Your task to perform on an android device: toggle wifi Image 0: 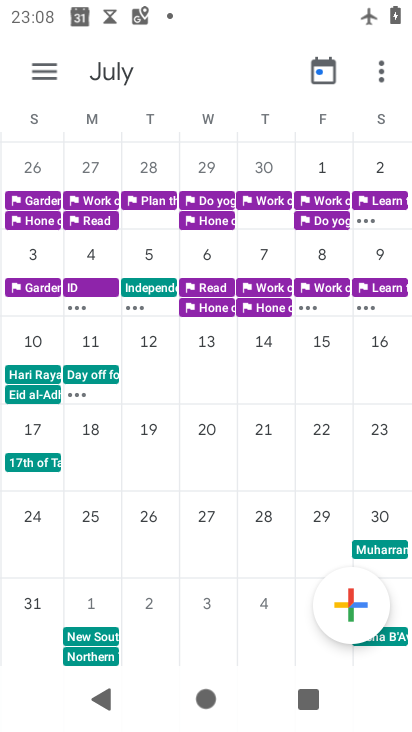
Step 0: press home button
Your task to perform on an android device: toggle wifi Image 1: 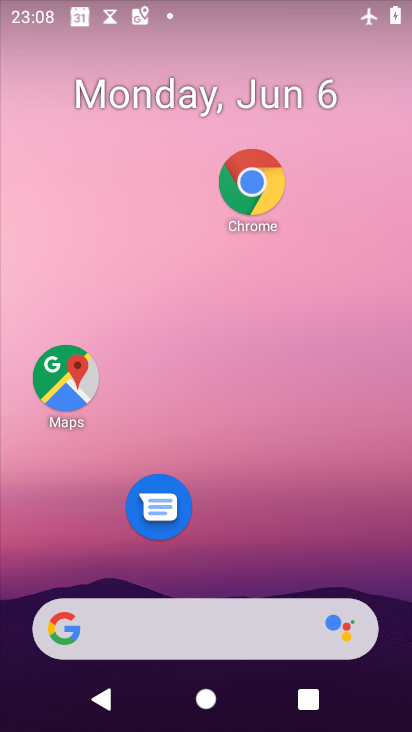
Step 1: drag from (251, 395) to (265, 206)
Your task to perform on an android device: toggle wifi Image 2: 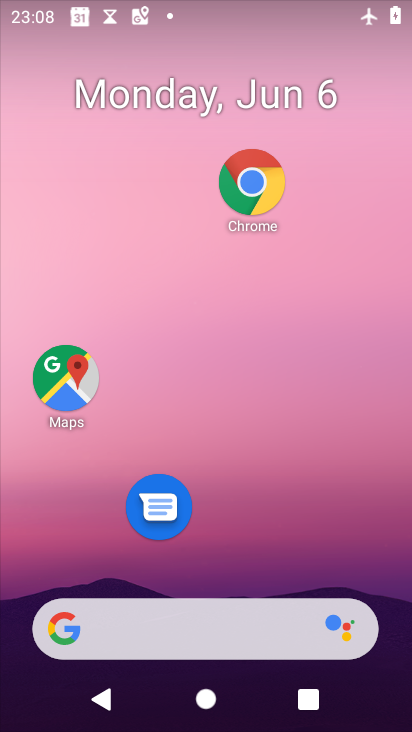
Step 2: drag from (240, 415) to (274, 177)
Your task to perform on an android device: toggle wifi Image 3: 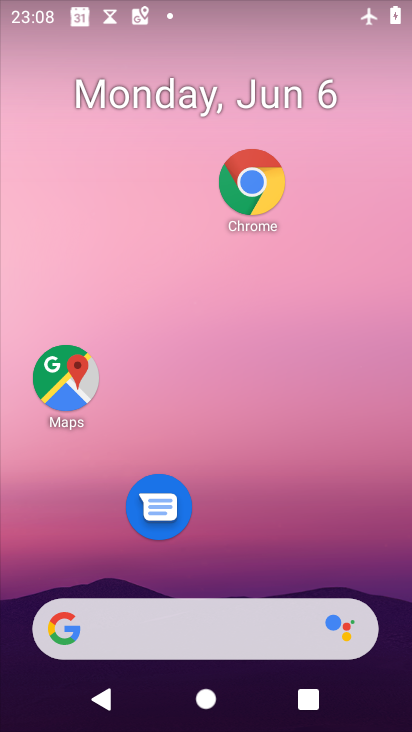
Step 3: drag from (192, 569) to (234, 206)
Your task to perform on an android device: toggle wifi Image 4: 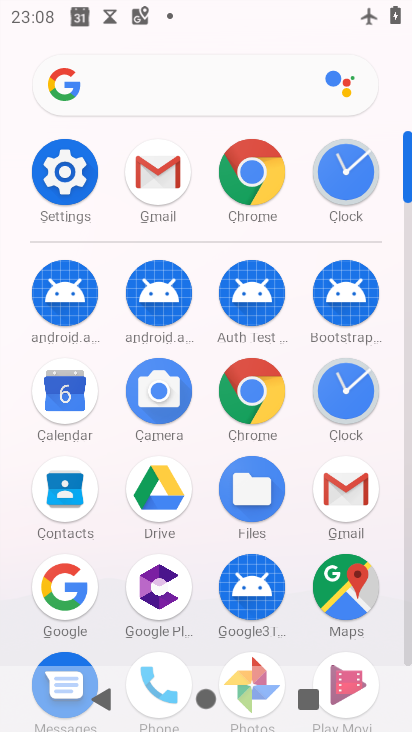
Step 4: click (60, 154)
Your task to perform on an android device: toggle wifi Image 5: 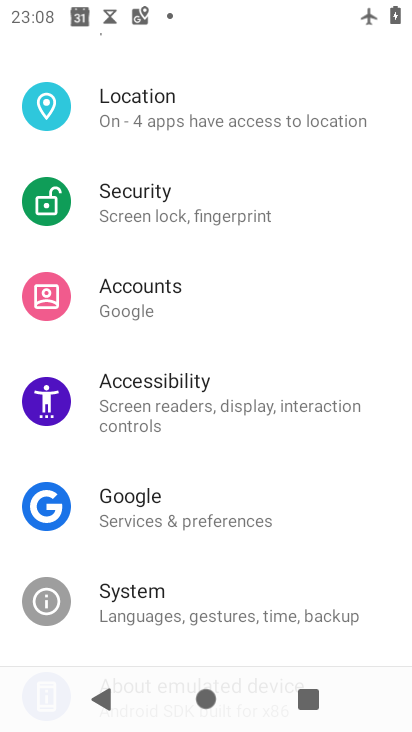
Step 5: click (252, 511)
Your task to perform on an android device: toggle wifi Image 6: 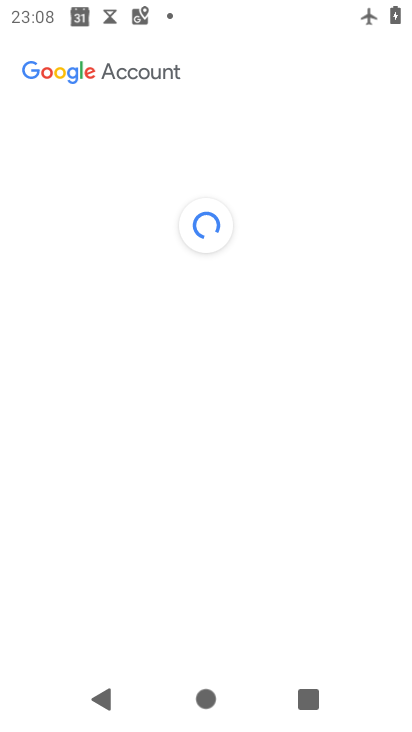
Step 6: drag from (193, 449) to (189, 675)
Your task to perform on an android device: toggle wifi Image 7: 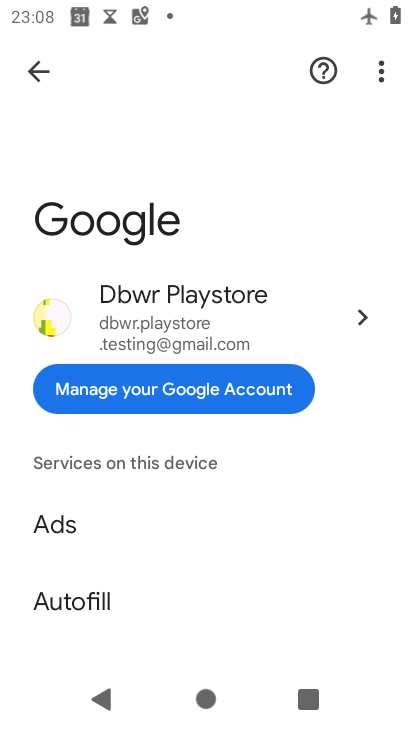
Step 7: press back button
Your task to perform on an android device: toggle wifi Image 8: 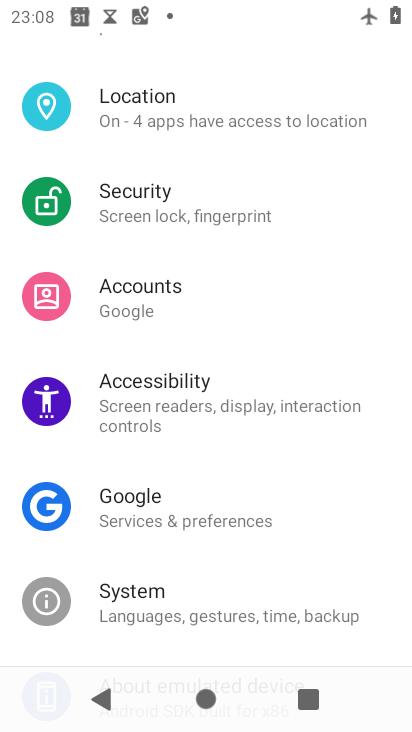
Step 8: drag from (223, 117) to (243, 600)
Your task to perform on an android device: toggle wifi Image 9: 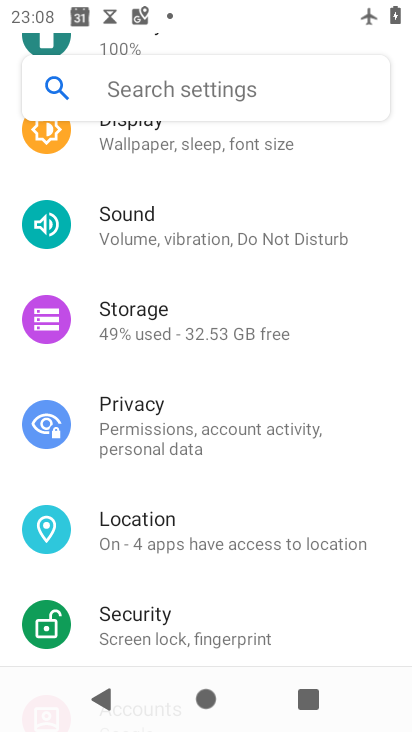
Step 9: drag from (229, 175) to (251, 539)
Your task to perform on an android device: toggle wifi Image 10: 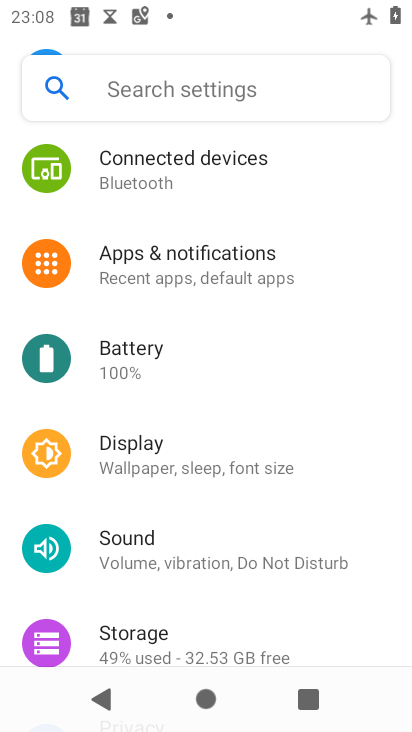
Step 10: drag from (238, 193) to (253, 604)
Your task to perform on an android device: toggle wifi Image 11: 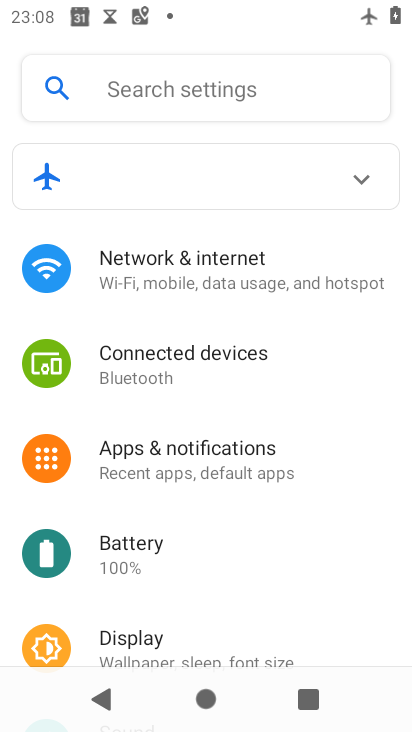
Step 11: click (222, 260)
Your task to perform on an android device: toggle wifi Image 12: 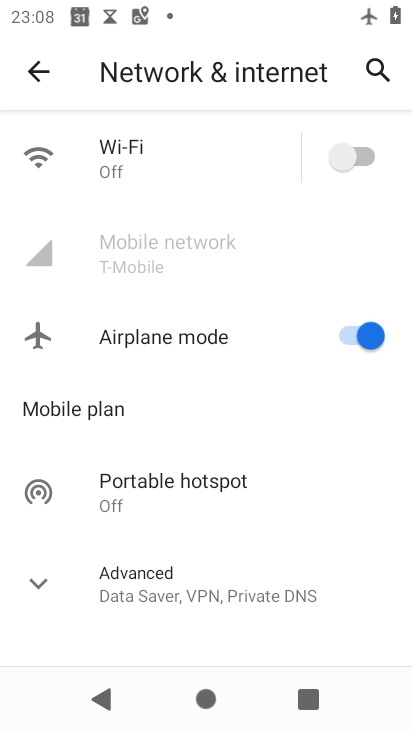
Step 12: click (346, 150)
Your task to perform on an android device: toggle wifi Image 13: 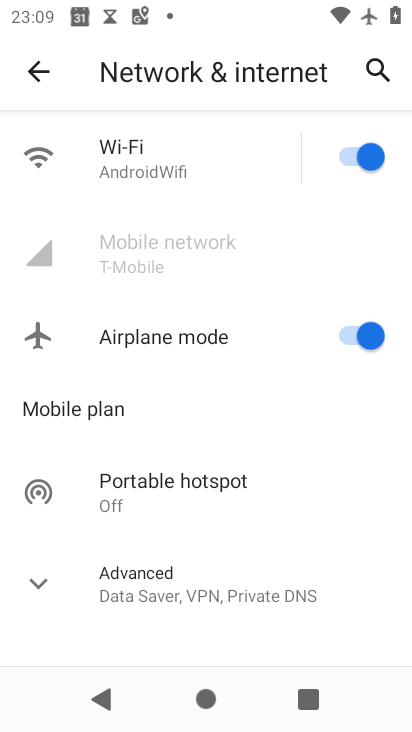
Step 13: task complete